Your task to perform on an android device: see tabs open on other devices in the chrome app Image 0: 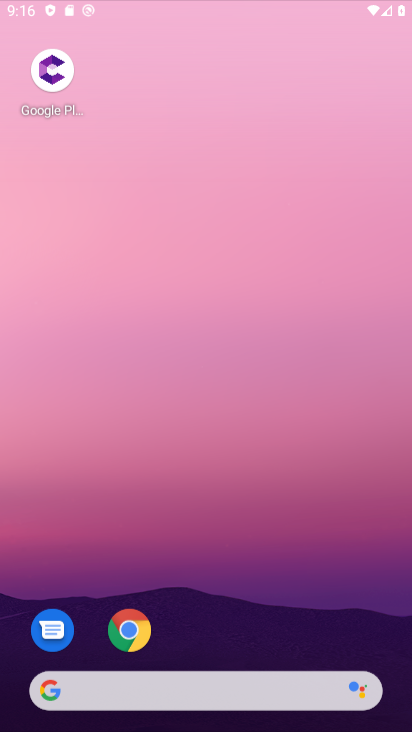
Step 0: drag from (308, 138) to (328, 50)
Your task to perform on an android device: see tabs open on other devices in the chrome app Image 1: 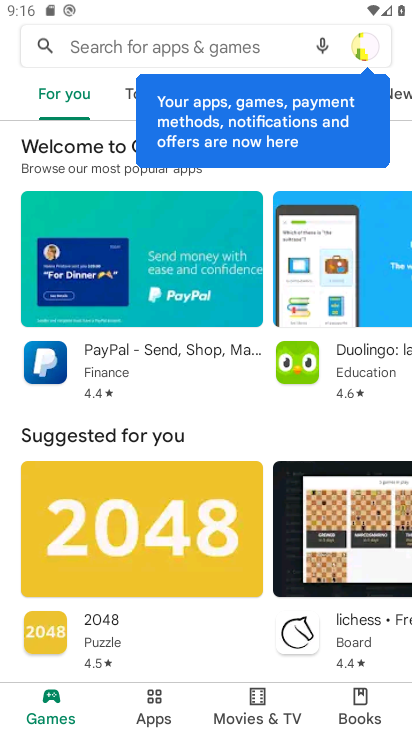
Step 1: press back button
Your task to perform on an android device: see tabs open on other devices in the chrome app Image 2: 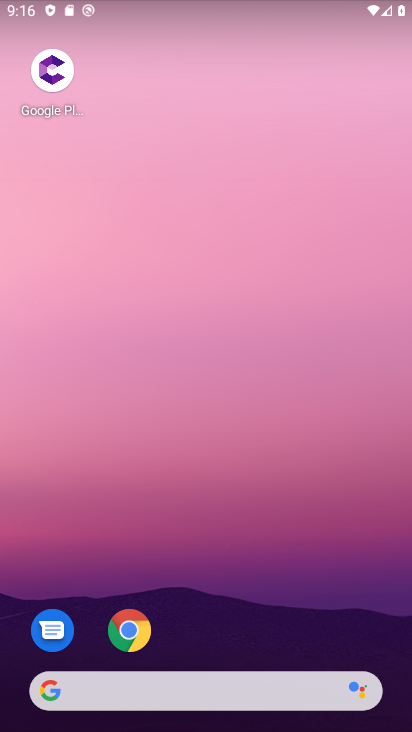
Step 2: click (130, 631)
Your task to perform on an android device: see tabs open on other devices in the chrome app Image 3: 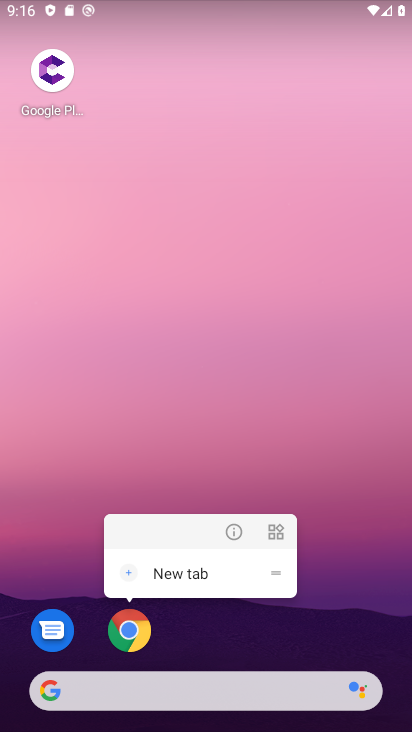
Step 3: click (130, 631)
Your task to perform on an android device: see tabs open on other devices in the chrome app Image 4: 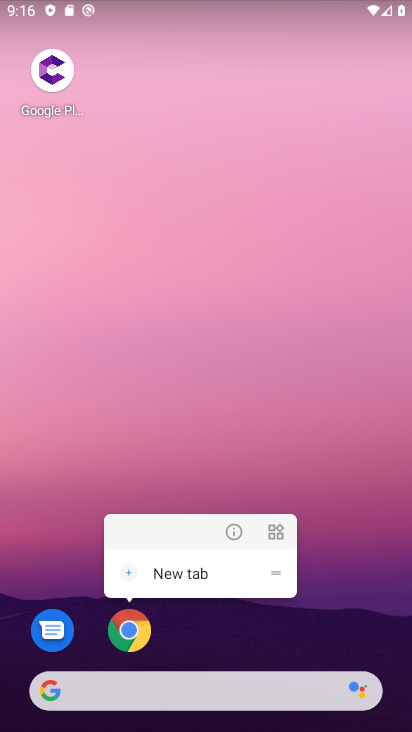
Step 4: click (122, 643)
Your task to perform on an android device: see tabs open on other devices in the chrome app Image 5: 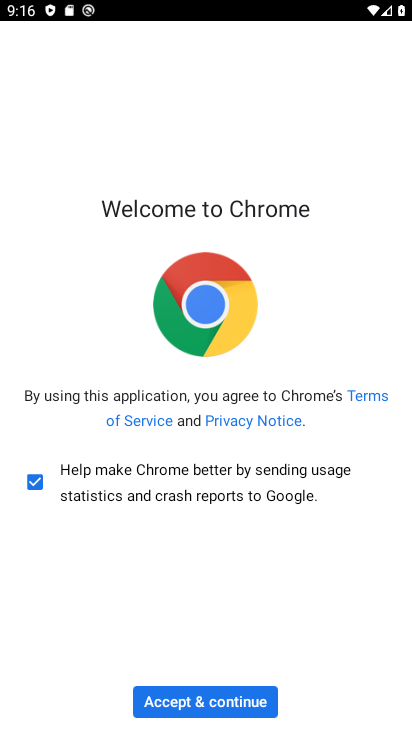
Step 5: click (235, 705)
Your task to perform on an android device: see tabs open on other devices in the chrome app Image 6: 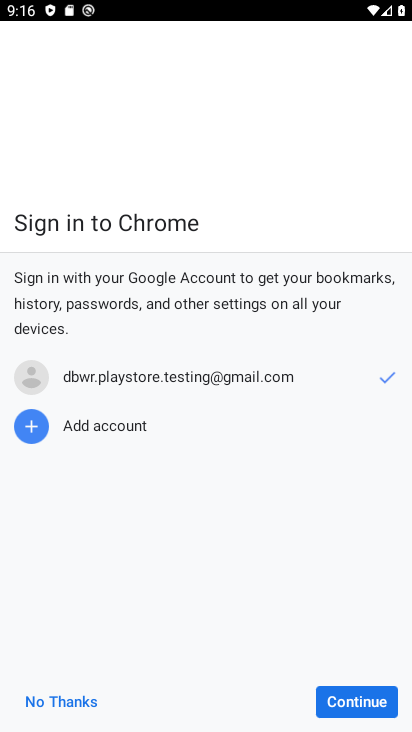
Step 6: click (372, 700)
Your task to perform on an android device: see tabs open on other devices in the chrome app Image 7: 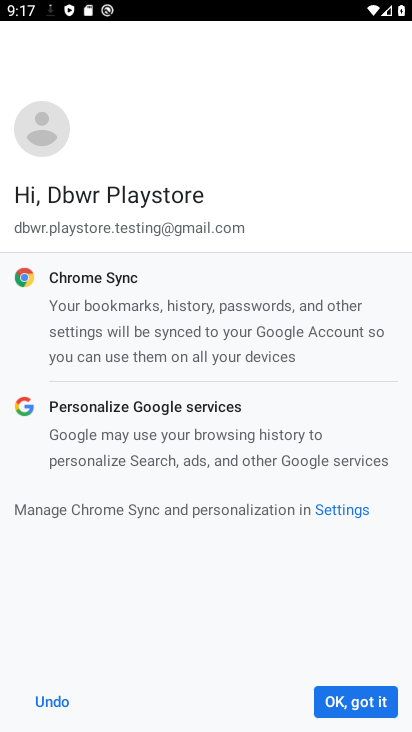
Step 7: click (370, 700)
Your task to perform on an android device: see tabs open on other devices in the chrome app Image 8: 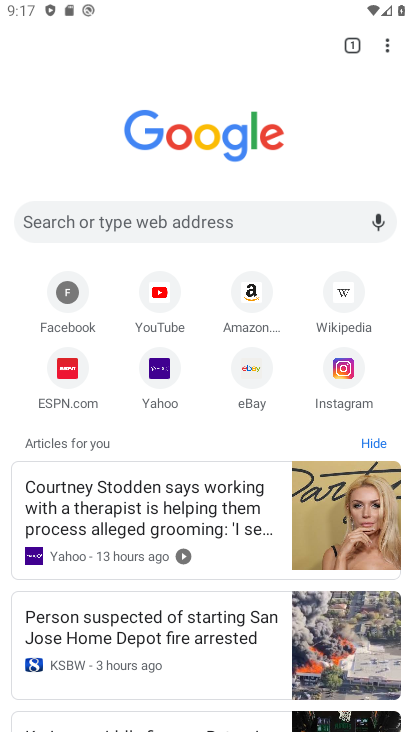
Step 8: task complete